Your task to perform on an android device: Go to Amazon Image 0: 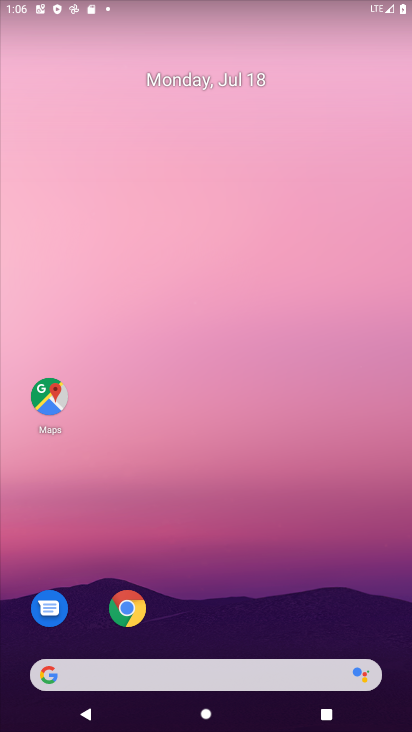
Step 0: drag from (352, 650) to (251, 38)
Your task to perform on an android device: Go to Amazon Image 1: 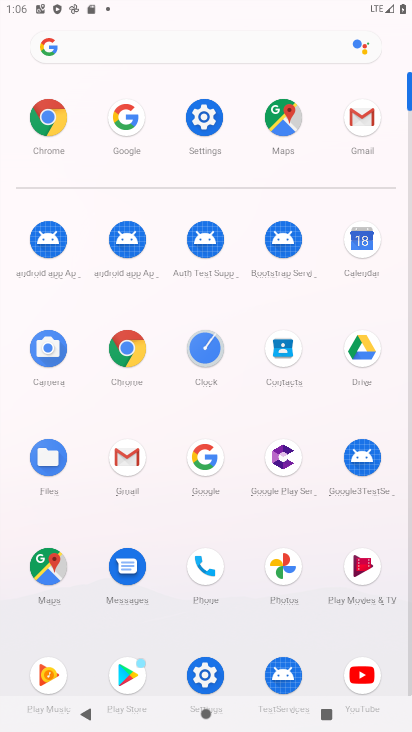
Step 1: click (191, 456)
Your task to perform on an android device: Go to Amazon Image 2: 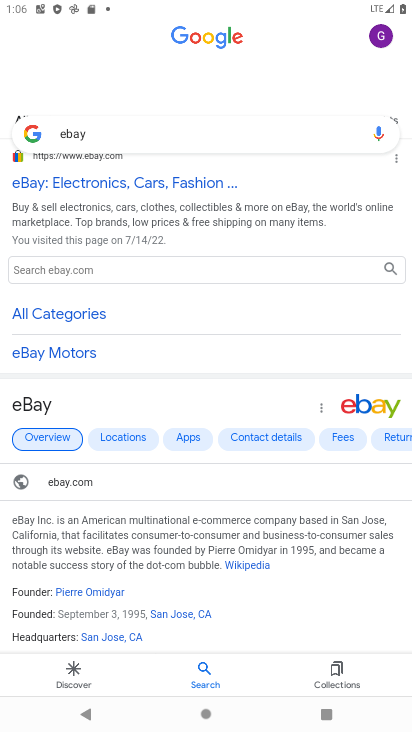
Step 2: press back button
Your task to perform on an android device: Go to Amazon Image 3: 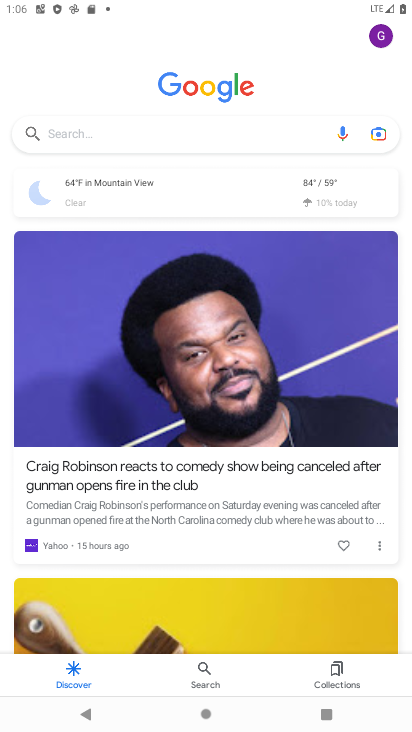
Step 3: click (142, 129)
Your task to perform on an android device: Go to Amazon Image 4: 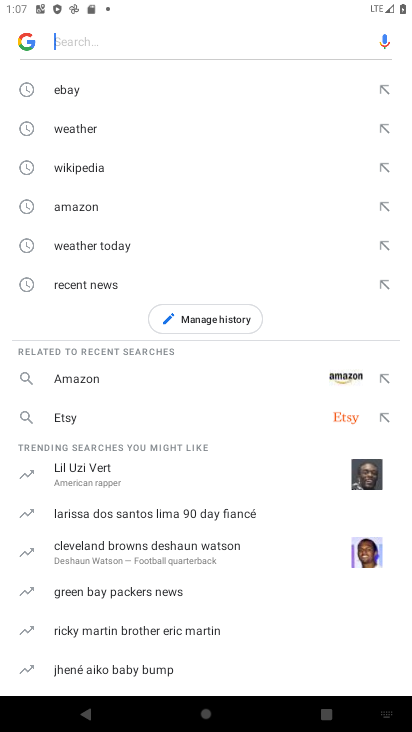
Step 4: type "Amazon"
Your task to perform on an android device: Go to Amazon Image 5: 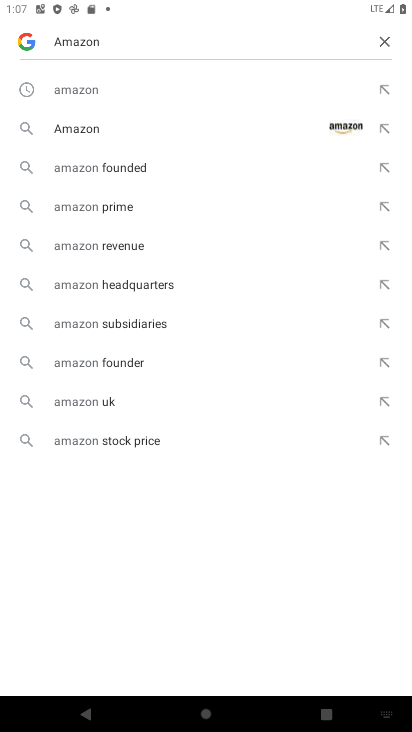
Step 5: click (130, 92)
Your task to perform on an android device: Go to Amazon Image 6: 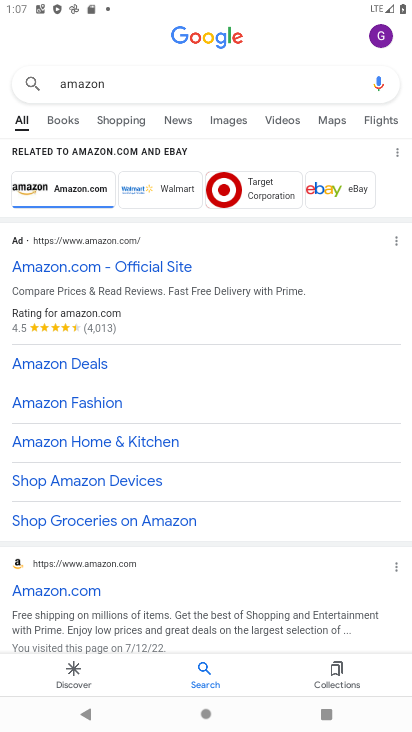
Step 6: task complete